Your task to perform on an android device: What's the weather? Image 0: 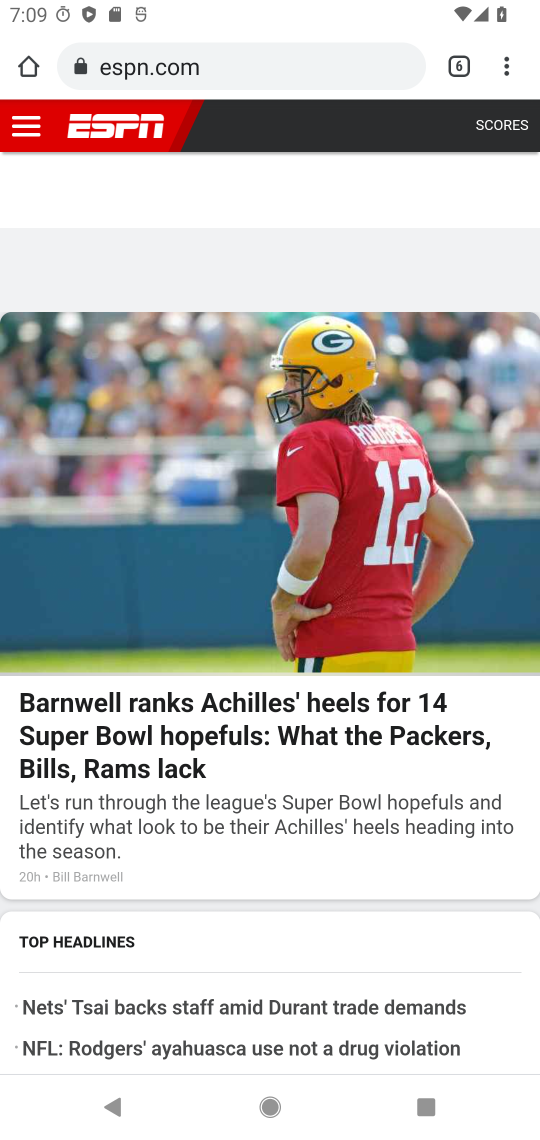
Step 0: press home button
Your task to perform on an android device: What's the weather? Image 1: 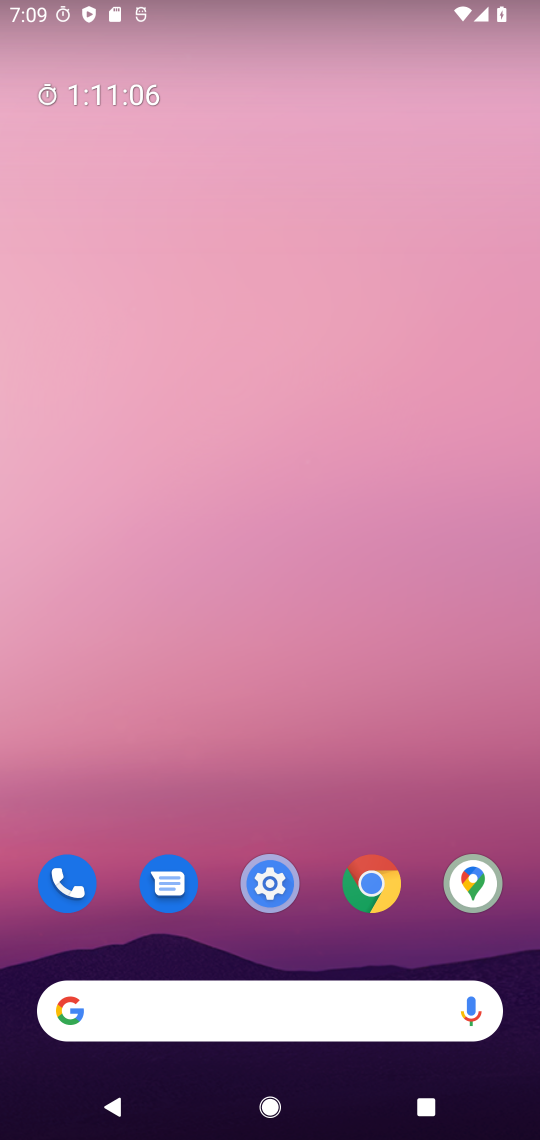
Step 1: drag from (299, 827) to (270, 265)
Your task to perform on an android device: What's the weather? Image 2: 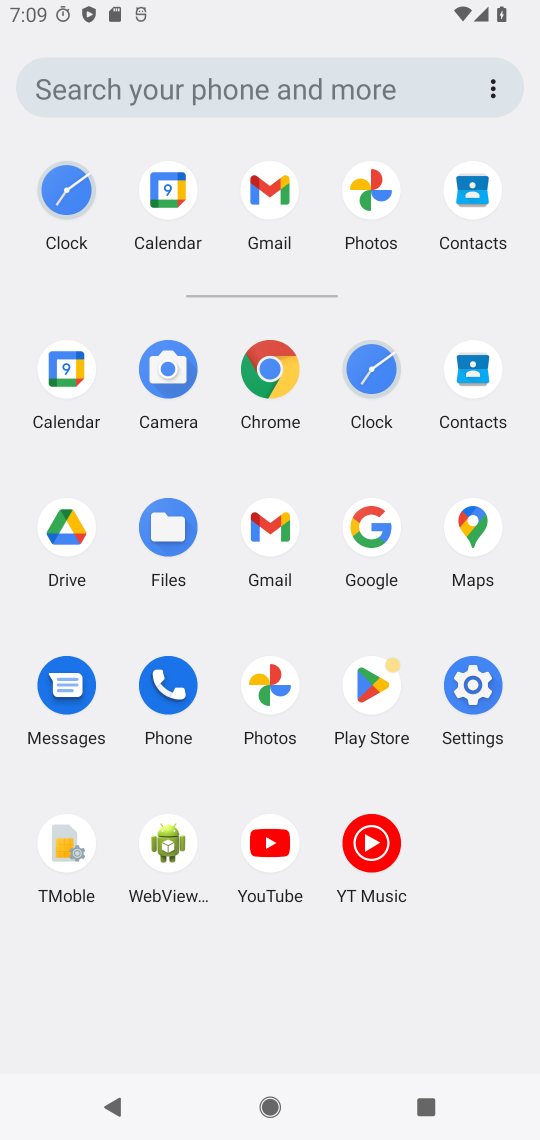
Step 2: click (350, 509)
Your task to perform on an android device: What's the weather? Image 3: 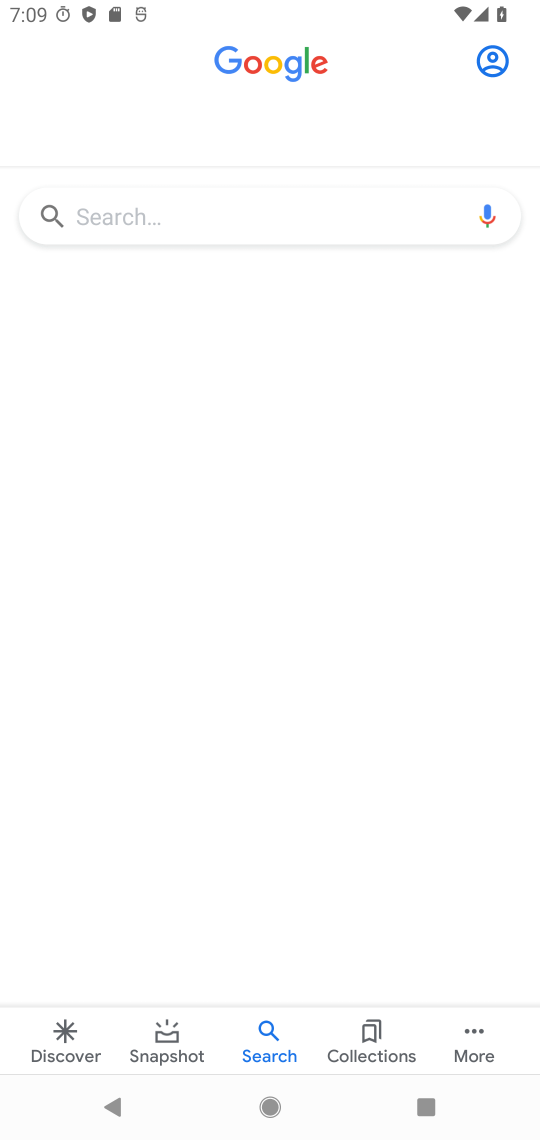
Step 3: click (213, 222)
Your task to perform on an android device: What's the weather? Image 4: 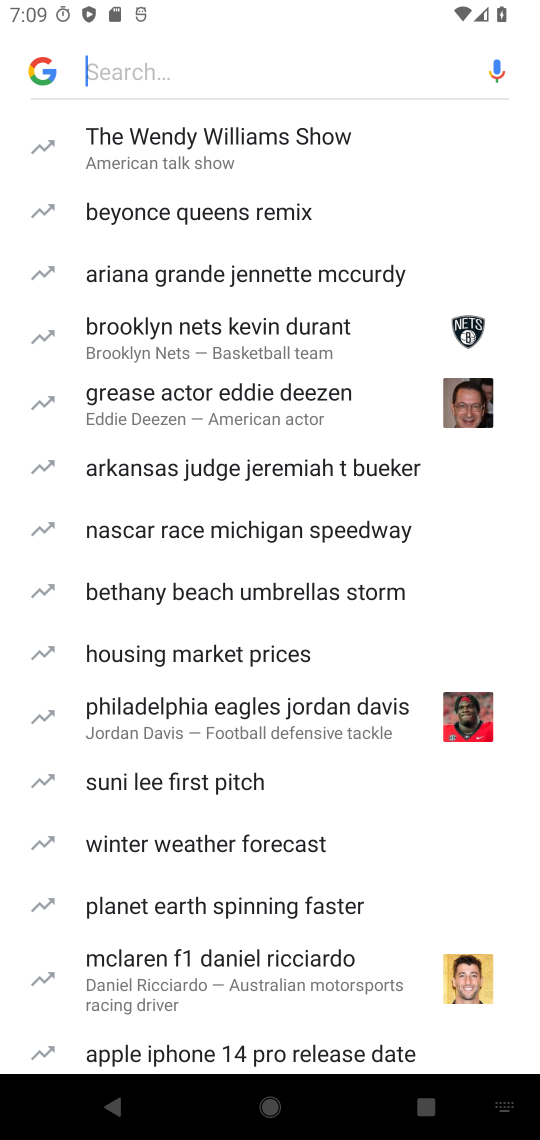
Step 4: type "weather"
Your task to perform on an android device: What's the weather? Image 5: 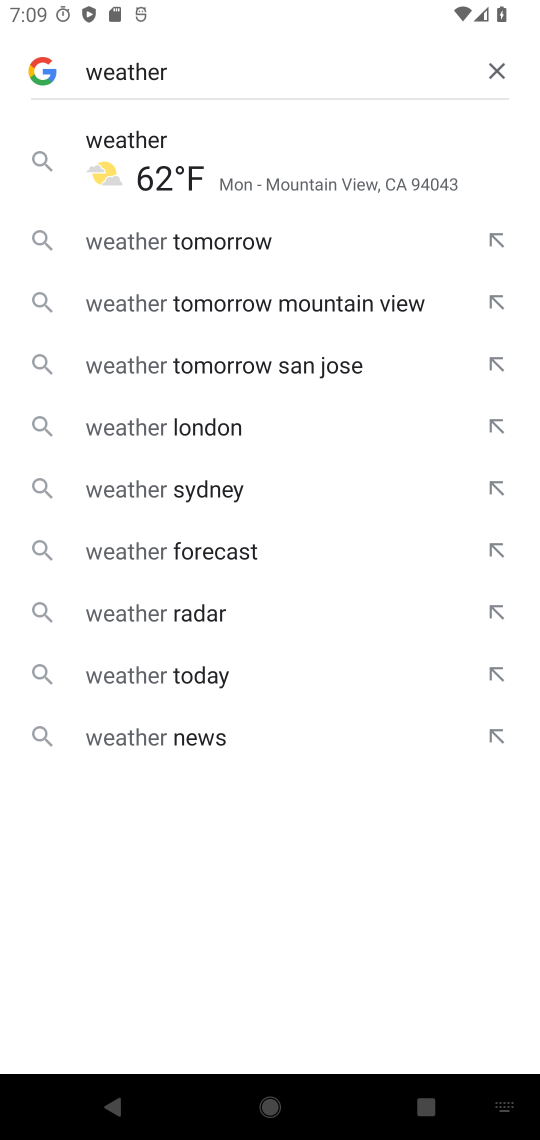
Step 5: click (190, 173)
Your task to perform on an android device: What's the weather? Image 6: 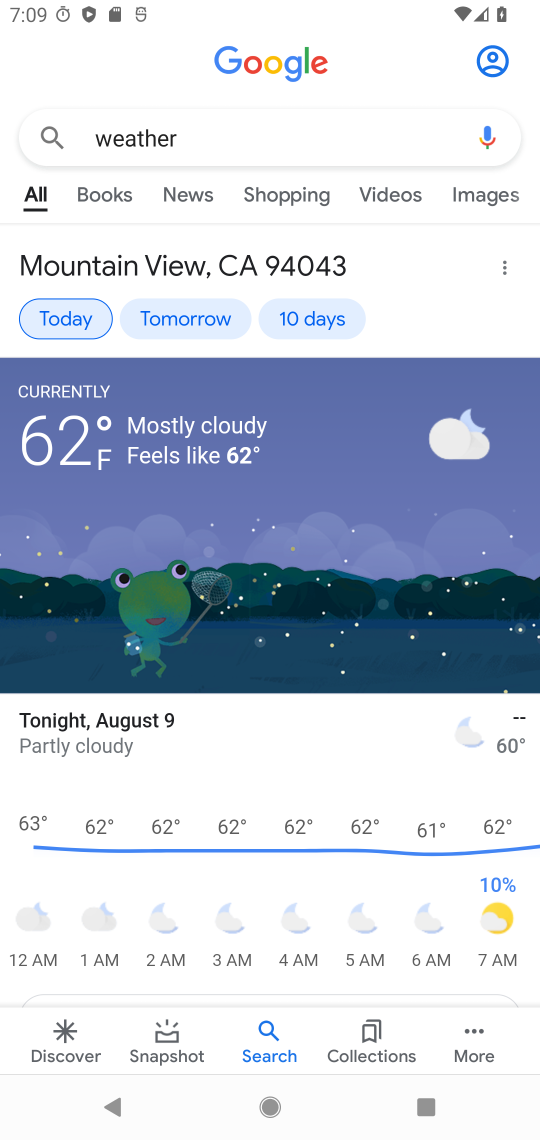
Step 6: task complete